Your task to perform on an android device: turn on priority inbox in the gmail app Image 0: 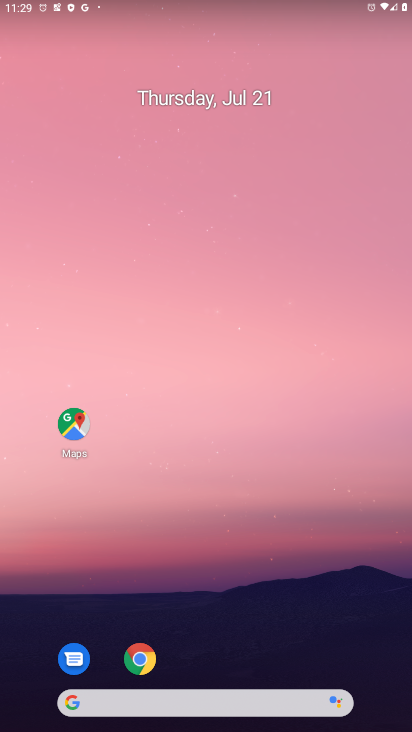
Step 0: drag from (207, 703) to (174, 86)
Your task to perform on an android device: turn on priority inbox in the gmail app Image 1: 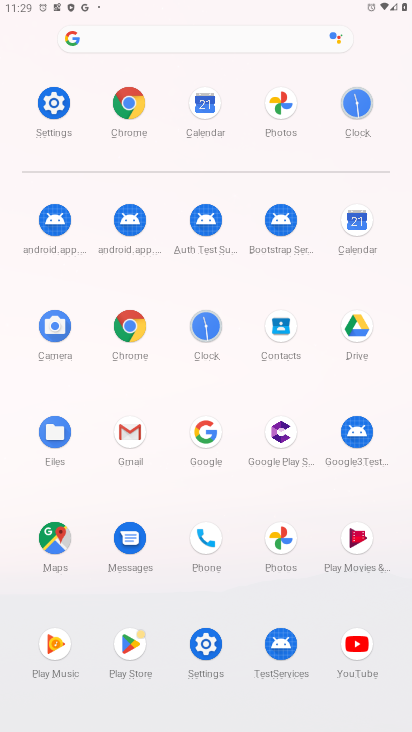
Step 1: click (131, 432)
Your task to perform on an android device: turn on priority inbox in the gmail app Image 2: 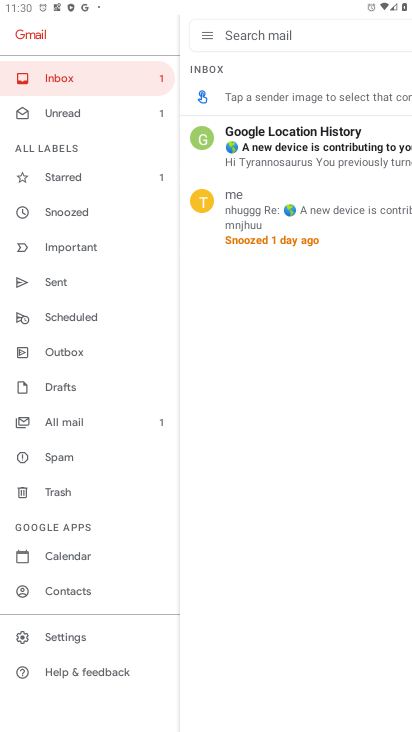
Step 2: click (76, 638)
Your task to perform on an android device: turn on priority inbox in the gmail app Image 3: 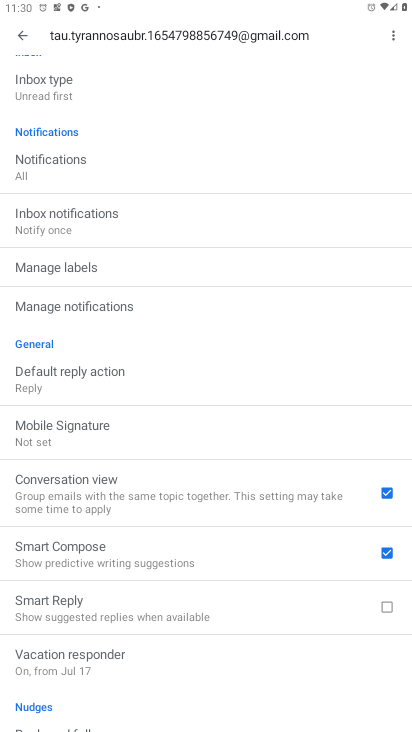
Step 3: click (56, 94)
Your task to perform on an android device: turn on priority inbox in the gmail app Image 4: 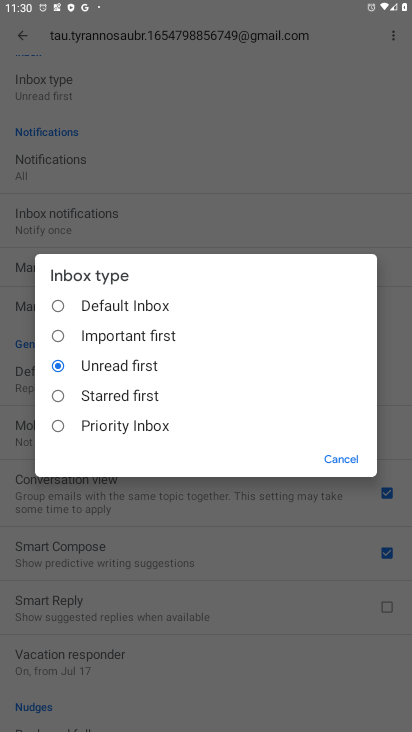
Step 4: click (58, 425)
Your task to perform on an android device: turn on priority inbox in the gmail app Image 5: 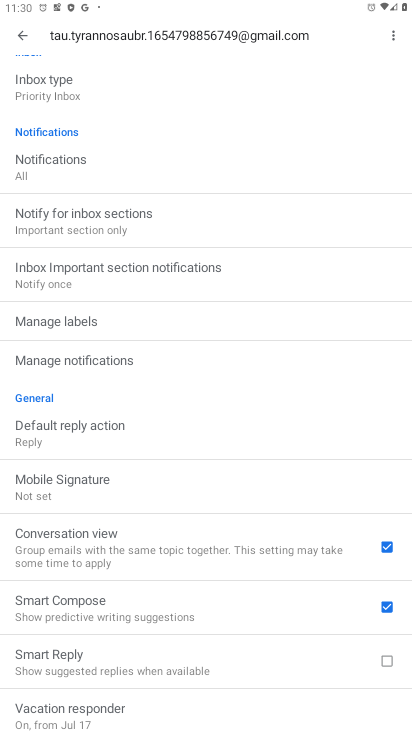
Step 5: task complete